Your task to perform on an android device: Open notification settings Image 0: 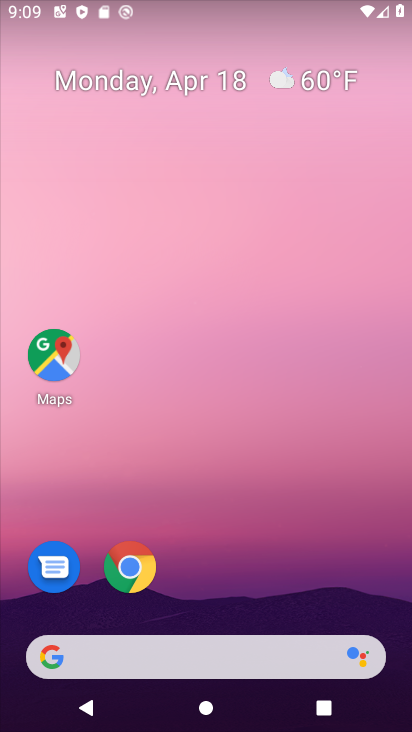
Step 0: drag from (203, 618) to (265, 21)
Your task to perform on an android device: Open notification settings Image 1: 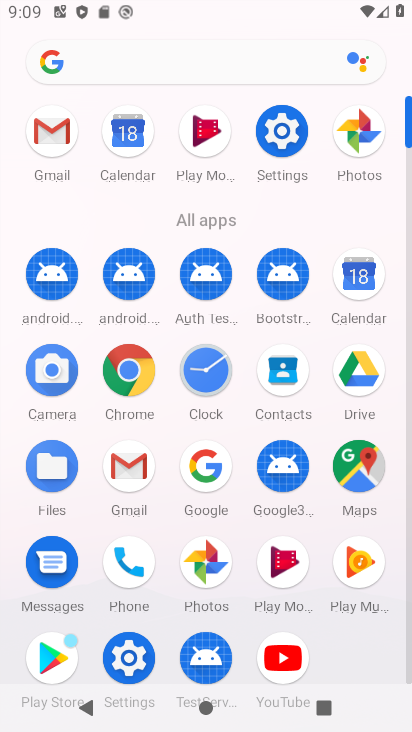
Step 1: click (286, 142)
Your task to perform on an android device: Open notification settings Image 2: 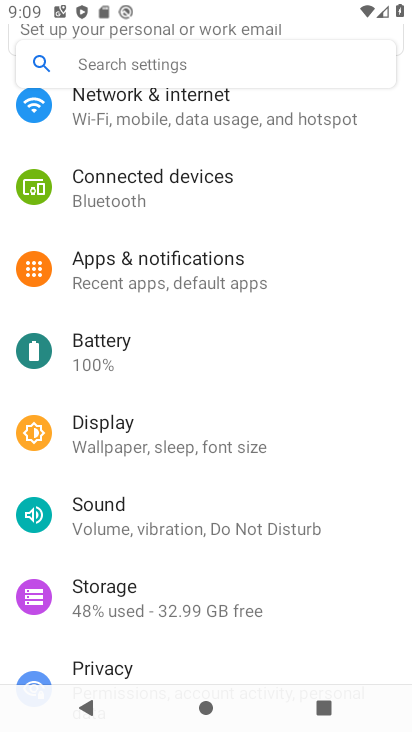
Step 2: click (203, 265)
Your task to perform on an android device: Open notification settings Image 3: 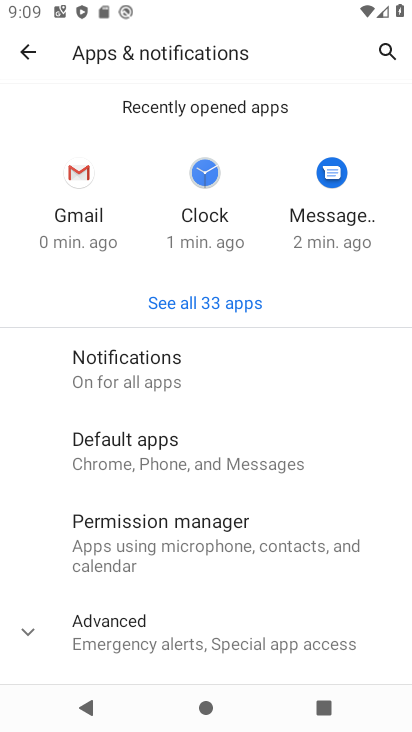
Step 3: click (158, 358)
Your task to perform on an android device: Open notification settings Image 4: 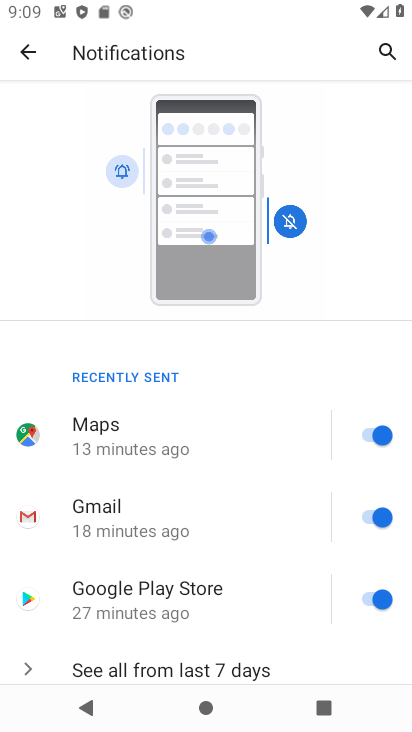
Step 4: task complete